Your task to perform on an android device: Clear the shopping cart on walmart. Add "acer nitro" to the cart on walmart, then select checkout. Image 0: 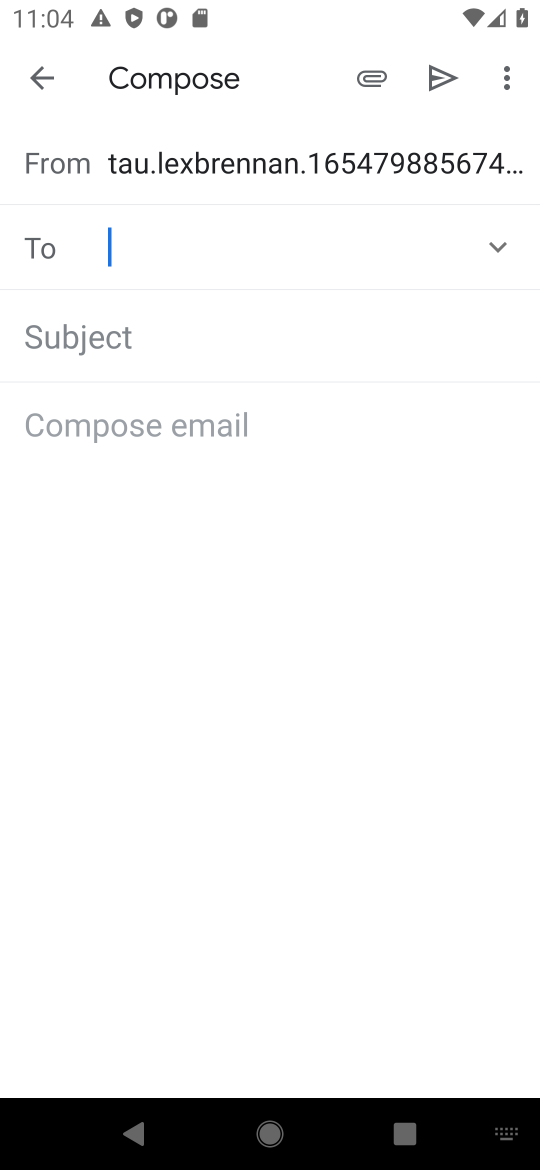
Step 0: press home button
Your task to perform on an android device: Clear the shopping cart on walmart. Add "acer nitro" to the cart on walmart, then select checkout. Image 1: 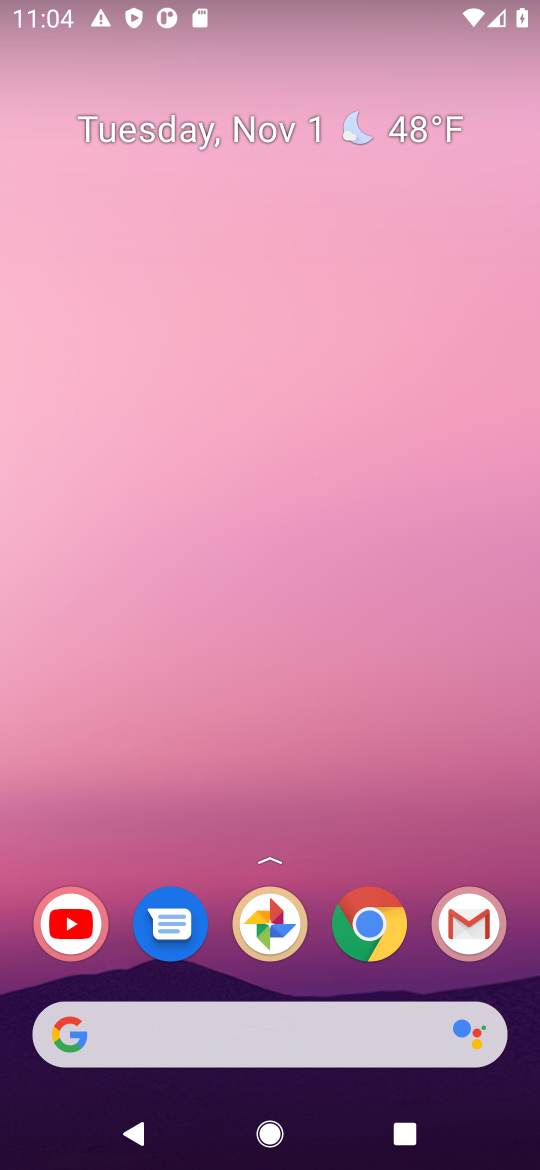
Step 1: click (377, 938)
Your task to perform on an android device: Clear the shopping cart on walmart. Add "acer nitro" to the cart on walmart, then select checkout. Image 2: 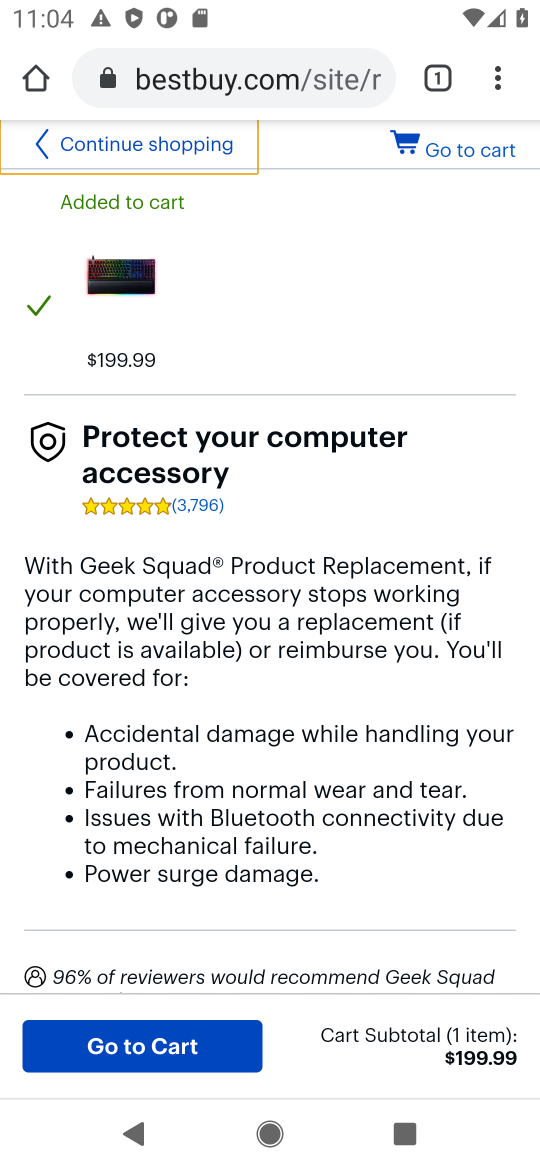
Step 2: click (275, 42)
Your task to perform on an android device: Clear the shopping cart on walmart. Add "acer nitro" to the cart on walmart, then select checkout. Image 3: 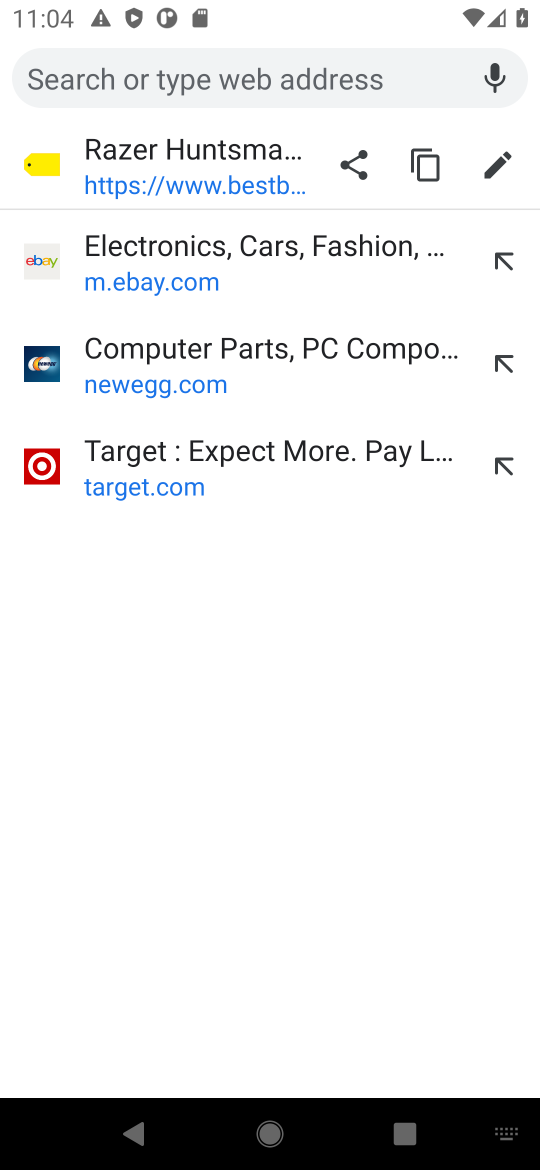
Step 3: click (313, 84)
Your task to perform on an android device: Clear the shopping cart on walmart. Add "acer nitro" to the cart on walmart, then select checkout. Image 4: 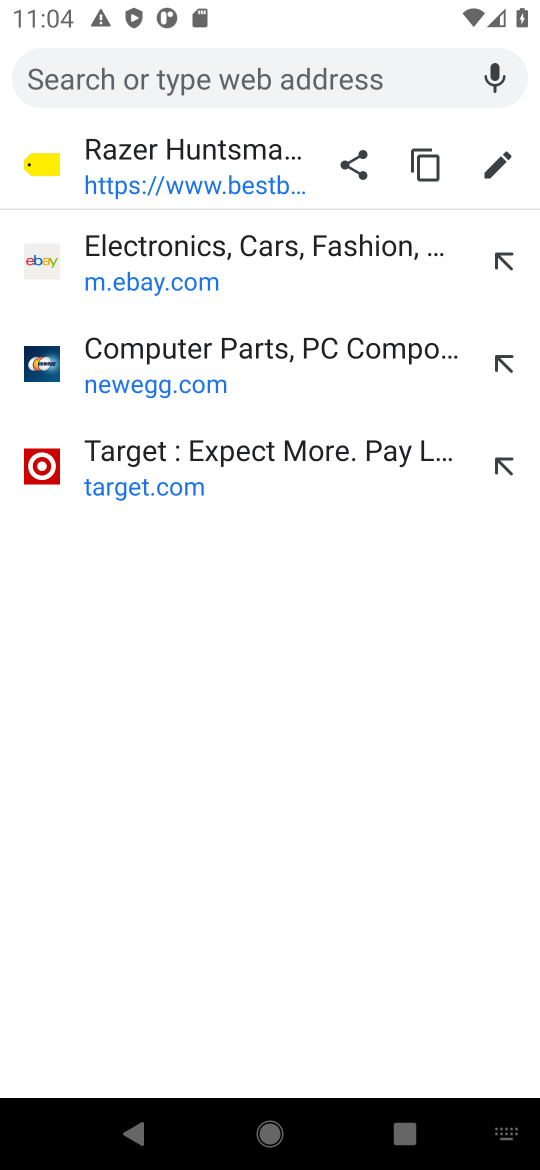
Step 4: type "walmart"
Your task to perform on an android device: Clear the shopping cart on walmart. Add "acer nitro" to the cart on walmart, then select checkout. Image 5: 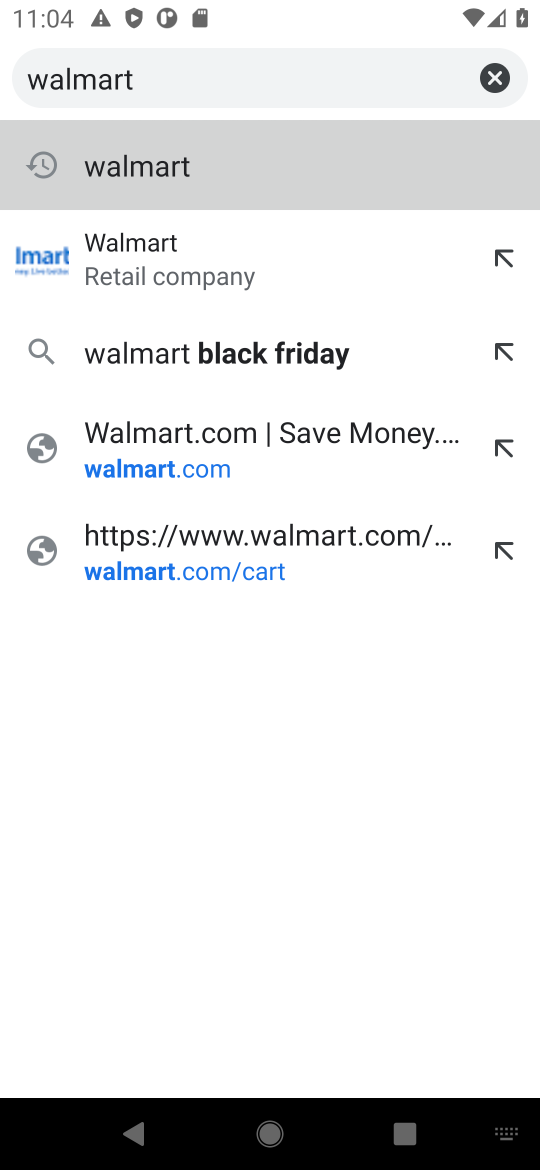
Step 5: click (147, 170)
Your task to perform on an android device: Clear the shopping cart on walmart. Add "acer nitro" to the cart on walmart, then select checkout. Image 6: 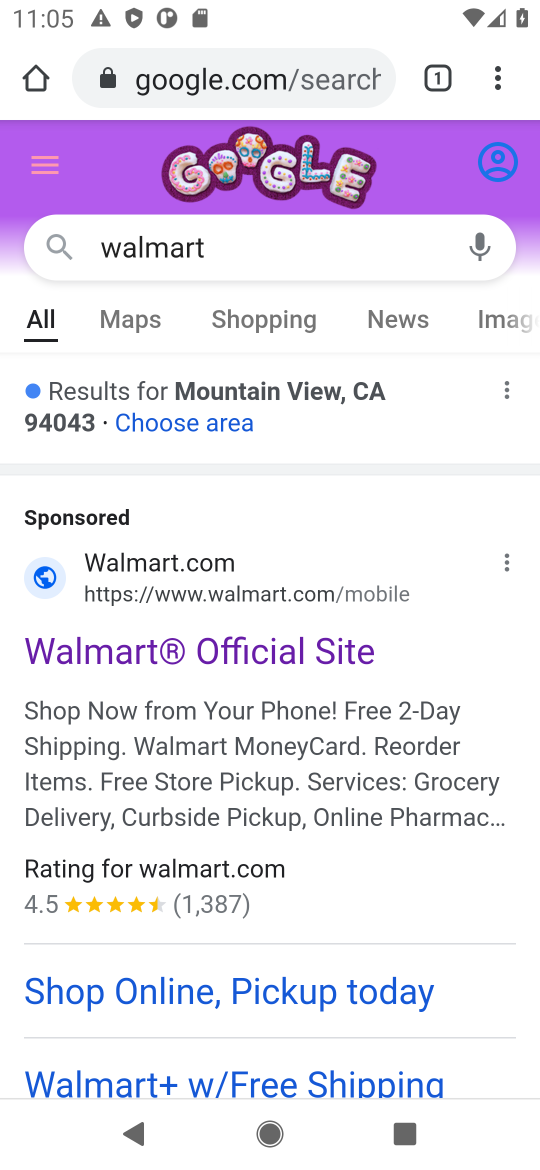
Step 6: drag from (413, 913) to (255, 503)
Your task to perform on an android device: Clear the shopping cart on walmart. Add "acer nitro" to the cart on walmart, then select checkout. Image 7: 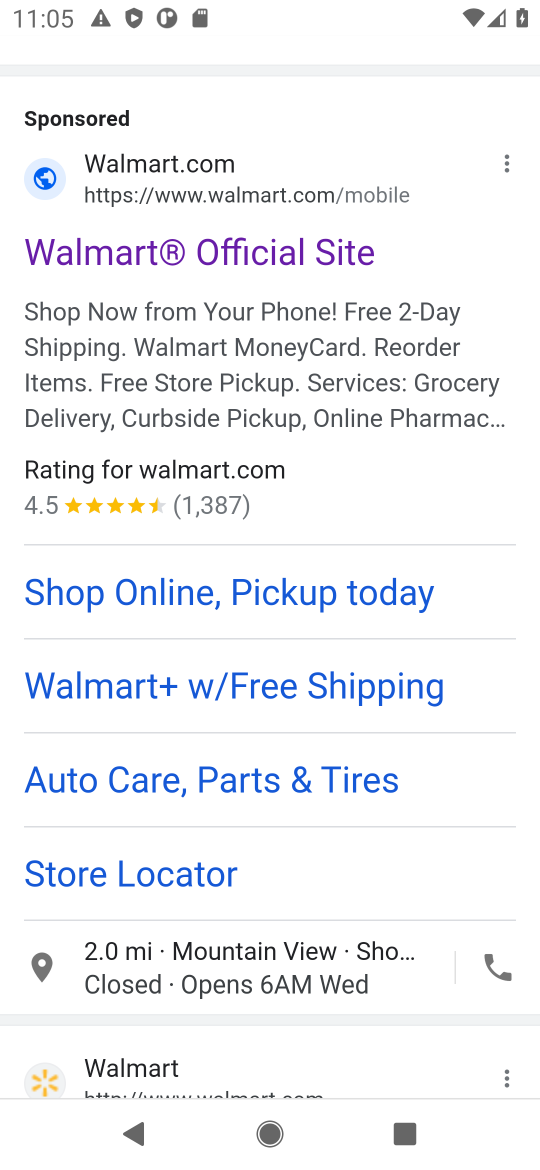
Step 7: click (141, 1064)
Your task to perform on an android device: Clear the shopping cart on walmart. Add "acer nitro" to the cart on walmart, then select checkout. Image 8: 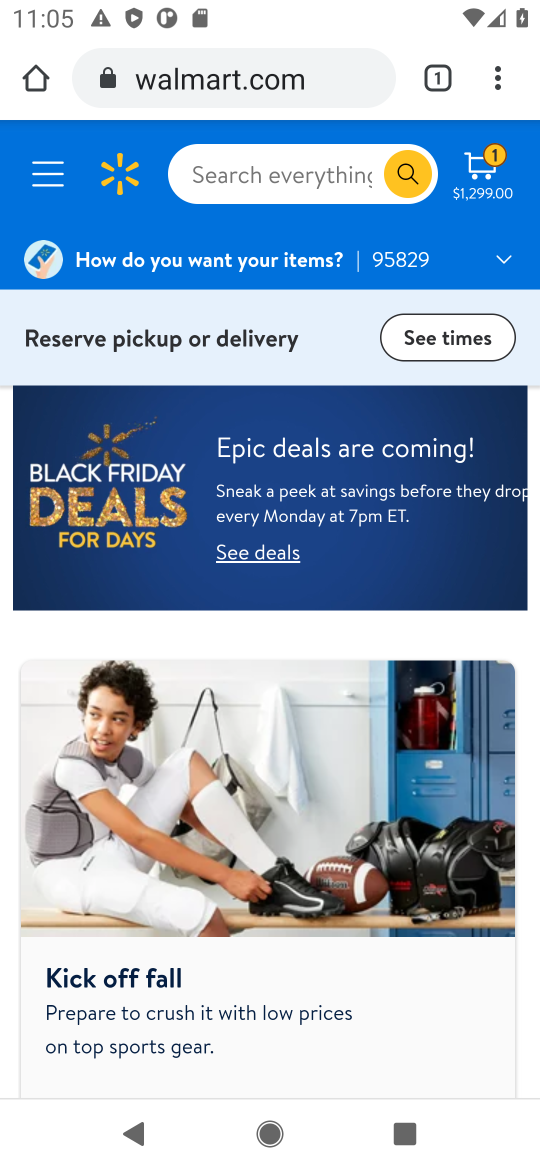
Step 8: click (486, 184)
Your task to perform on an android device: Clear the shopping cart on walmart. Add "acer nitro" to the cart on walmart, then select checkout. Image 9: 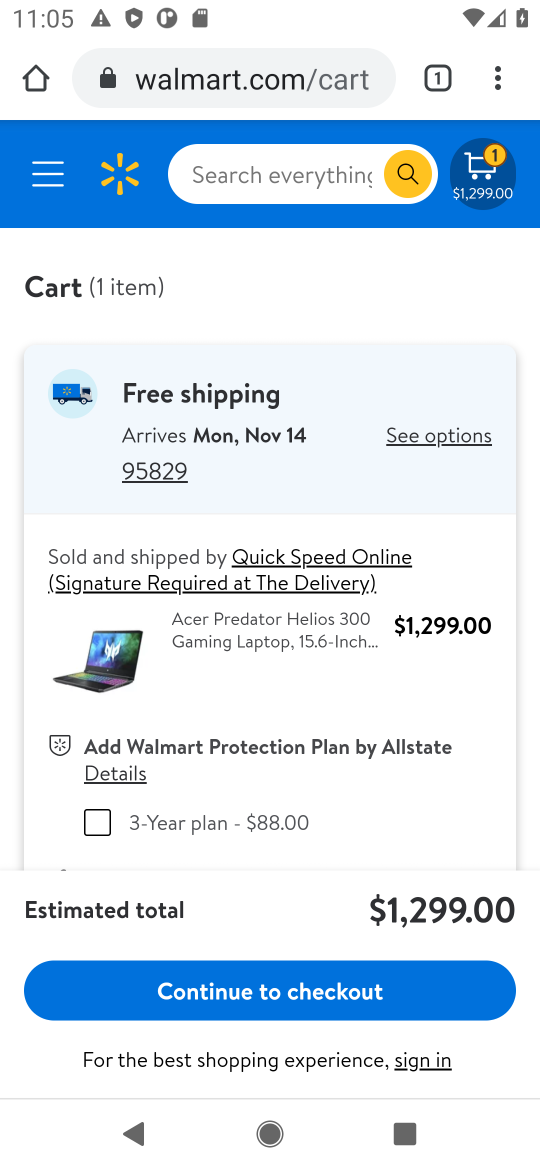
Step 9: drag from (284, 849) to (280, 508)
Your task to perform on an android device: Clear the shopping cart on walmart. Add "acer nitro" to the cart on walmart, then select checkout. Image 10: 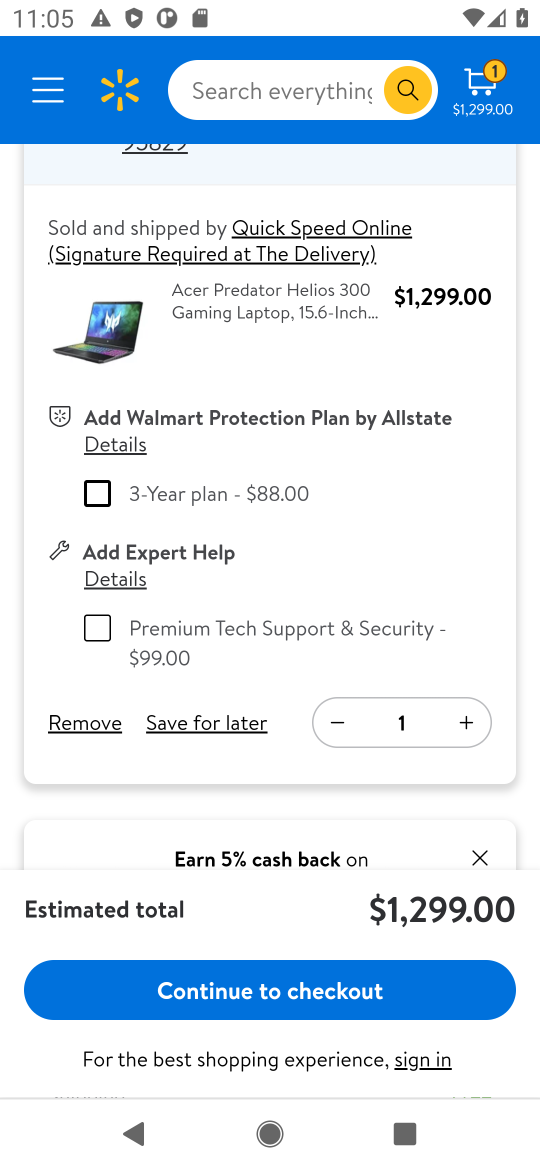
Step 10: click (337, 726)
Your task to perform on an android device: Clear the shopping cart on walmart. Add "acer nitro" to the cart on walmart, then select checkout. Image 11: 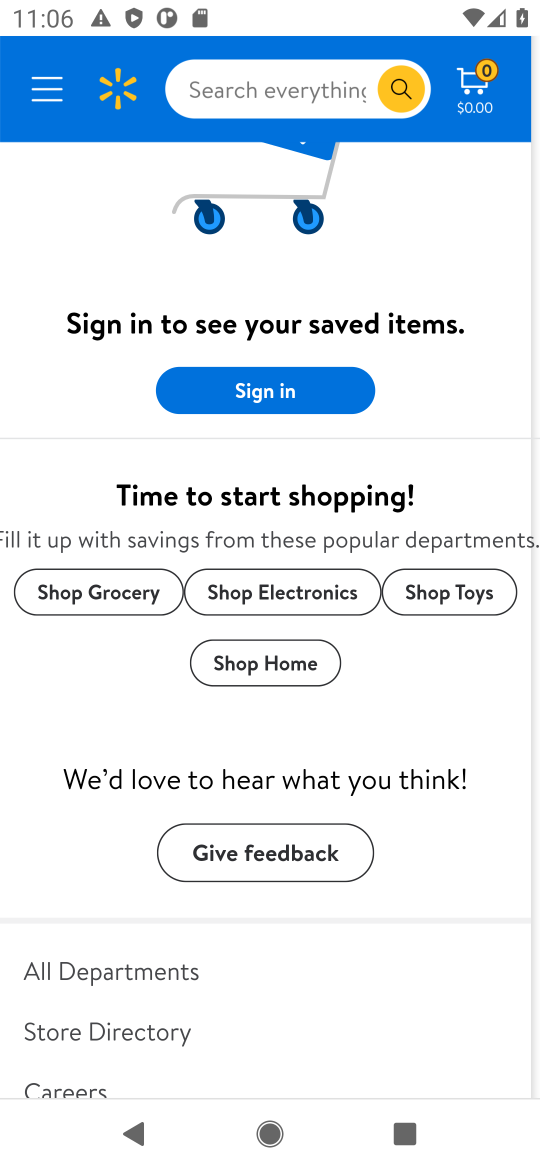
Step 11: click (268, 81)
Your task to perform on an android device: Clear the shopping cart on walmart. Add "acer nitro" to the cart on walmart, then select checkout. Image 12: 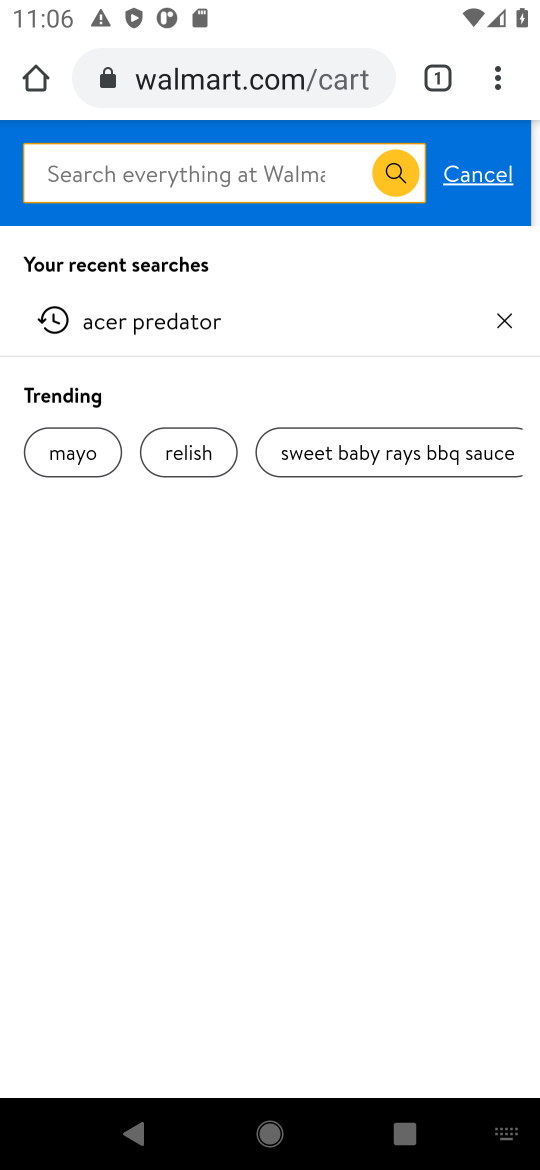
Step 12: type "acer nitro"
Your task to perform on an android device: Clear the shopping cart on walmart. Add "acer nitro" to the cart on walmart, then select checkout. Image 13: 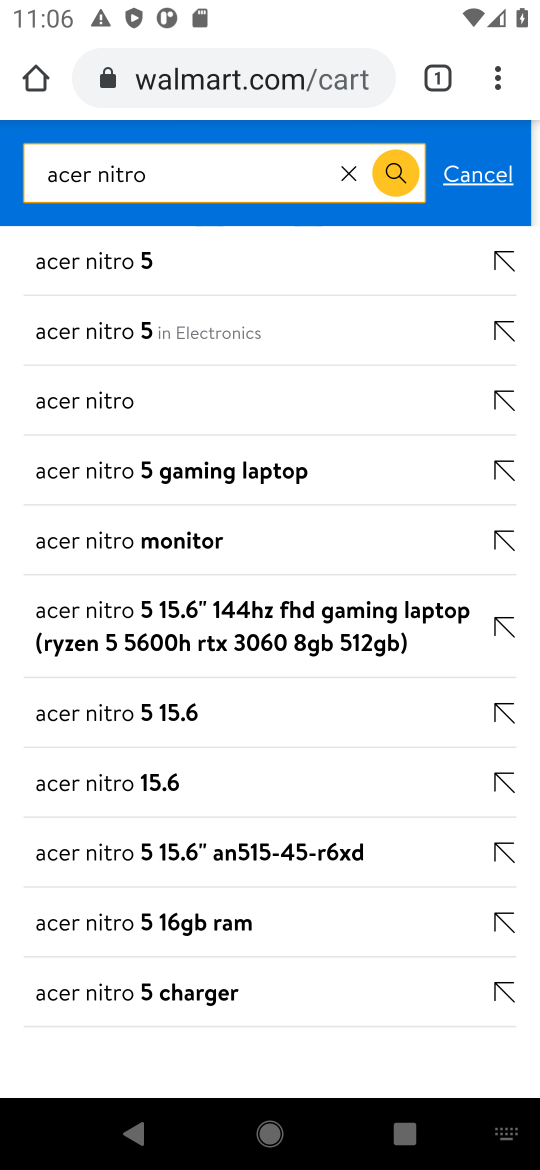
Step 13: click (391, 174)
Your task to perform on an android device: Clear the shopping cart on walmart. Add "acer nitro" to the cart on walmart, then select checkout. Image 14: 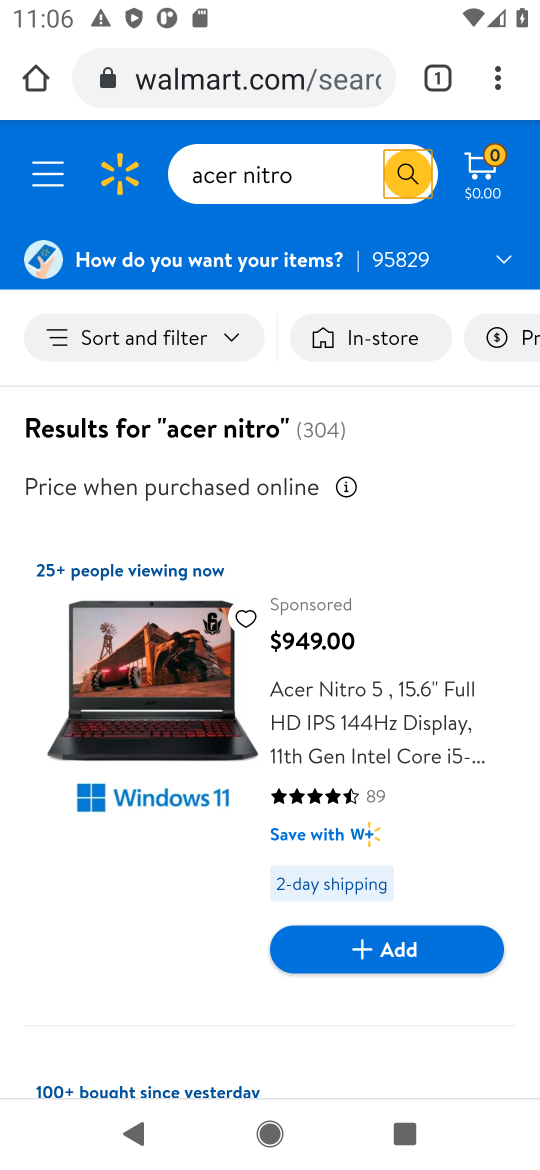
Step 14: click (359, 948)
Your task to perform on an android device: Clear the shopping cart on walmart. Add "acer nitro" to the cart on walmart, then select checkout. Image 15: 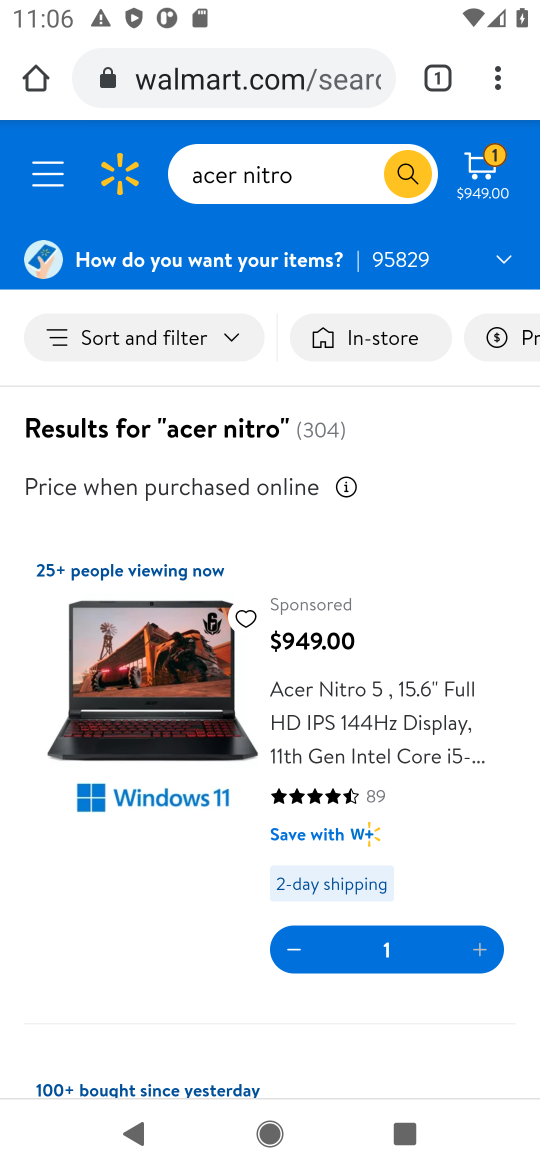
Step 15: click (492, 178)
Your task to perform on an android device: Clear the shopping cart on walmart. Add "acer nitro" to the cart on walmart, then select checkout. Image 16: 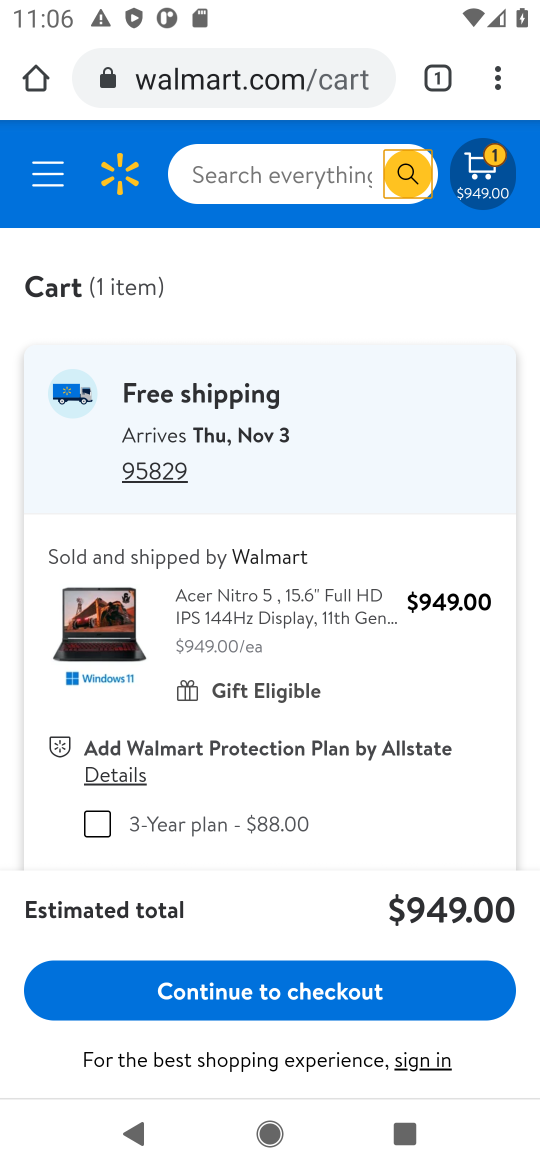
Step 16: click (315, 998)
Your task to perform on an android device: Clear the shopping cart on walmart. Add "acer nitro" to the cart on walmart, then select checkout. Image 17: 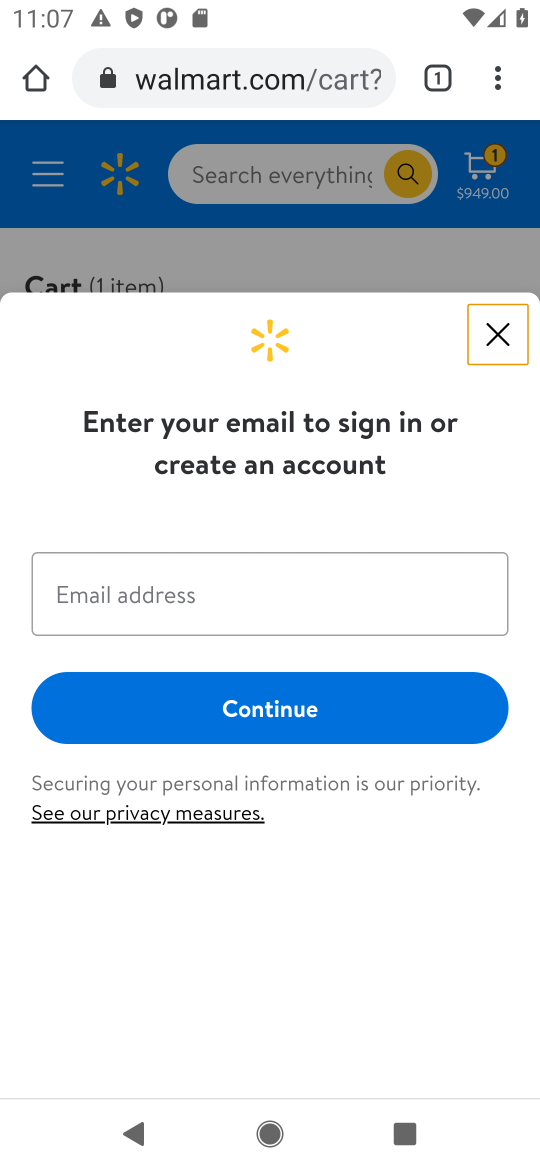
Step 17: click (499, 335)
Your task to perform on an android device: Clear the shopping cart on walmart. Add "acer nitro" to the cart on walmart, then select checkout. Image 18: 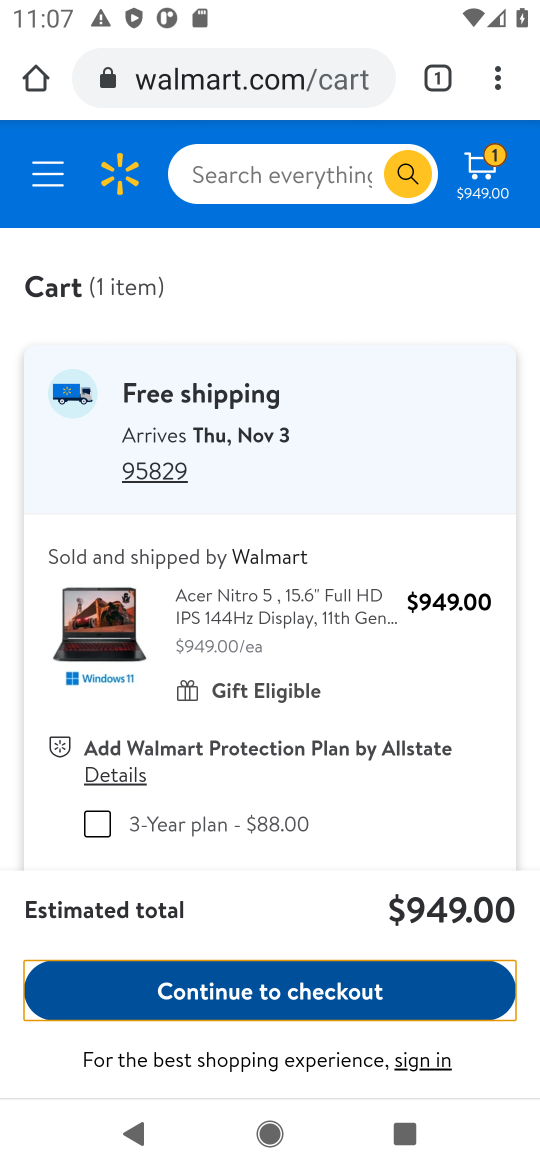
Step 18: task complete